Your task to perform on an android device: toggle improve location accuracy Image 0: 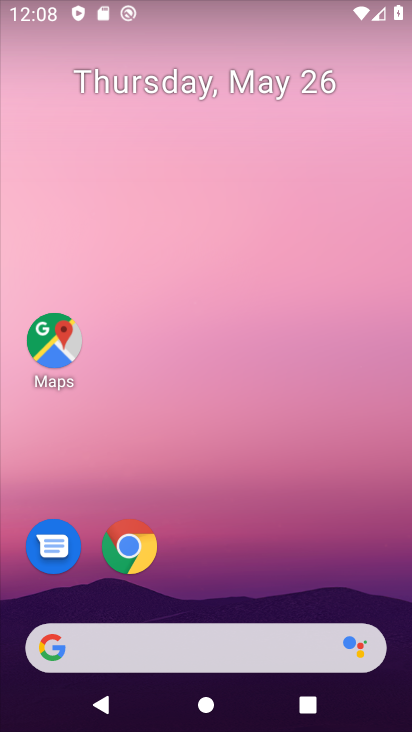
Step 0: drag from (410, 617) to (296, 63)
Your task to perform on an android device: toggle improve location accuracy Image 1: 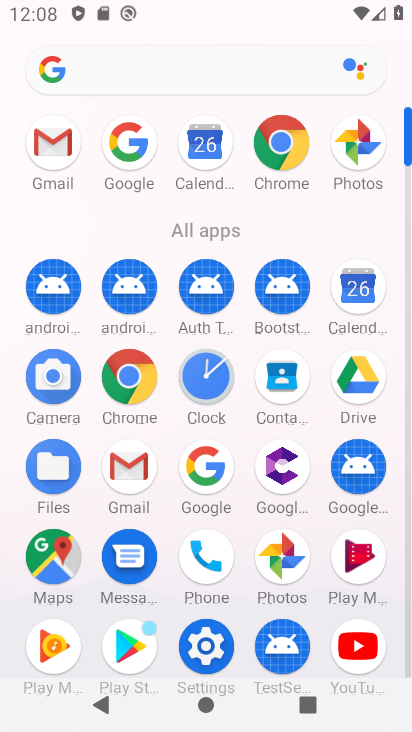
Step 1: click (210, 624)
Your task to perform on an android device: toggle improve location accuracy Image 2: 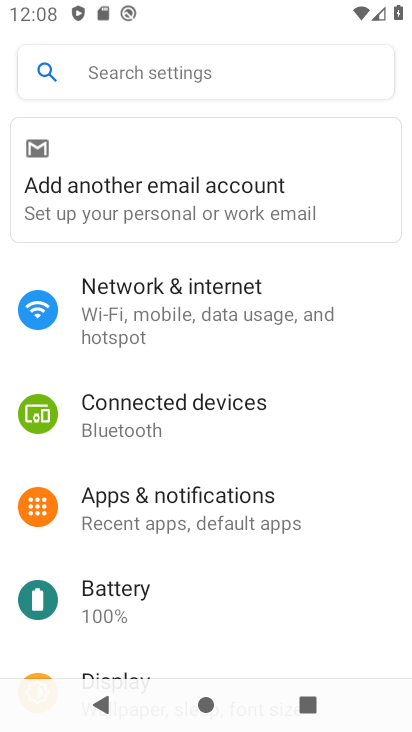
Step 2: drag from (129, 625) to (164, 258)
Your task to perform on an android device: toggle improve location accuracy Image 3: 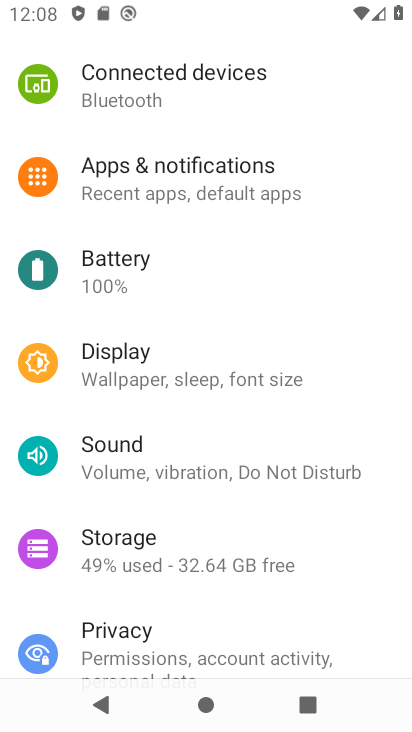
Step 3: drag from (140, 572) to (178, 247)
Your task to perform on an android device: toggle improve location accuracy Image 4: 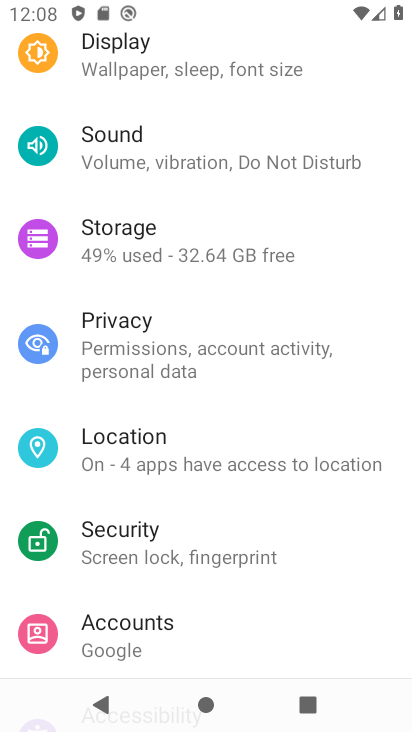
Step 4: click (155, 459)
Your task to perform on an android device: toggle improve location accuracy Image 5: 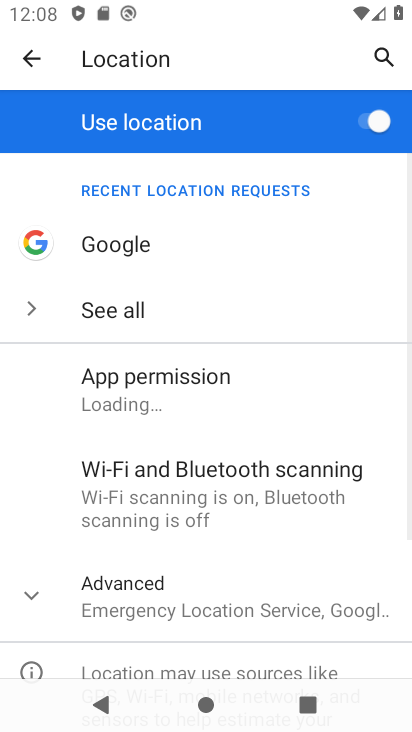
Step 5: click (307, 590)
Your task to perform on an android device: toggle improve location accuracy Image 6: 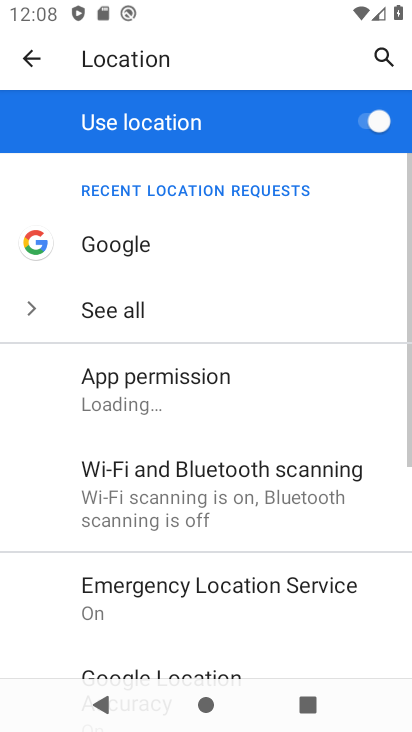
Step 6: click (239, 296)
Your task to perform on an android device: toggle improve location accuracy Image 7: 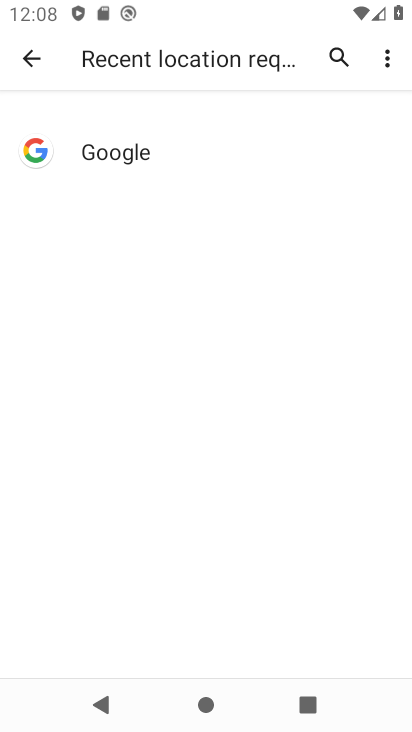
Step 7: press back button
Your task to perform on an android device: toggle improve location accuracy Image 8: 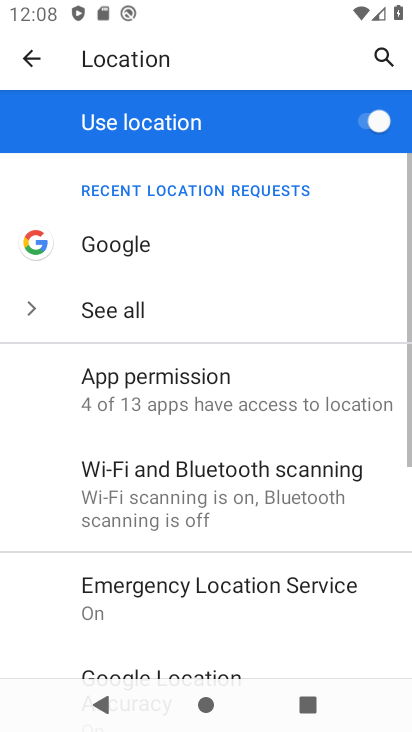
Step 8: drag from (223, 578) to (185, 173)
Your task to perform on an android device: toggle improve location accuracy Image 9: 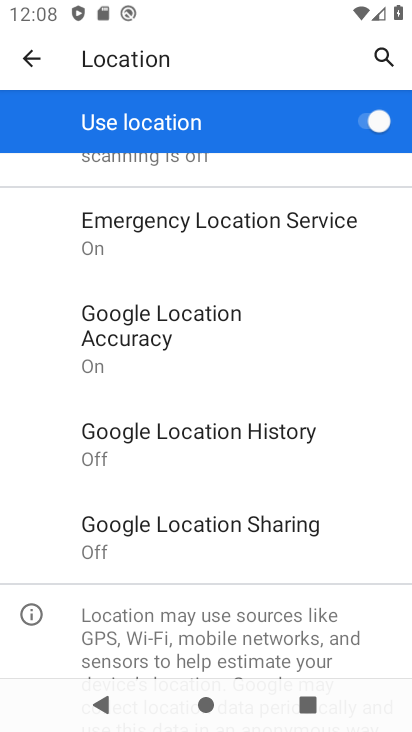
Step 9: click (149, 345)
Your task to perform on an android device: toggle improve location accuracy Image 10: 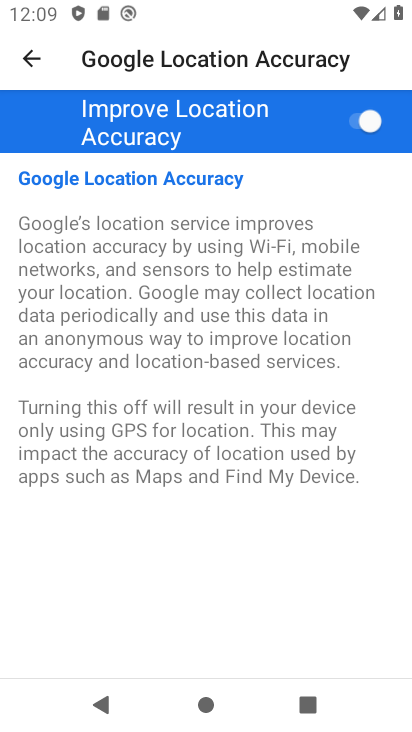
Step 10: click (336, 130)
Your task to perform on an android device: toggle improve location accuracy Image 11: 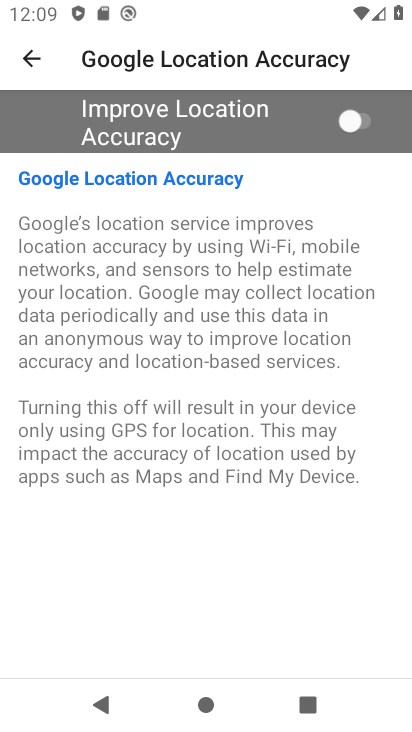
Step 11: task complete